Your task to perform on an android device: Open battery settings Image 0: 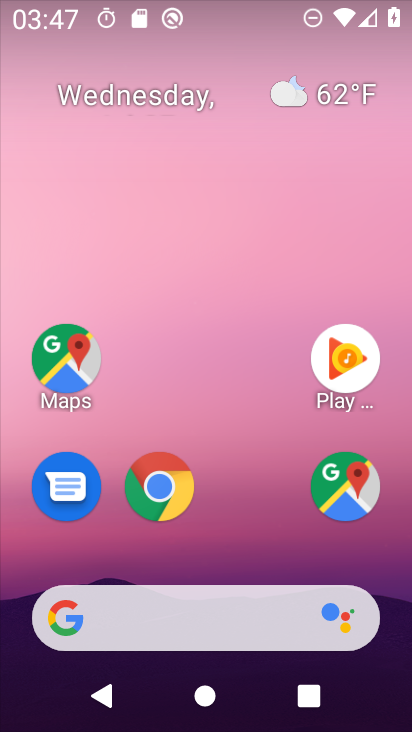
Step 0: press home button
Your task to perform on an android device: Open battery settings Image 1: 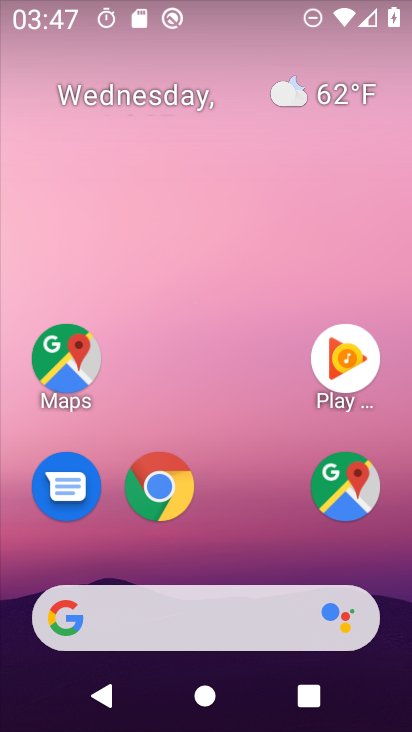
Step 1: drag from (306, 552) to (309, 142)
Your task to perform on an android device: Open battery settings Image 2: 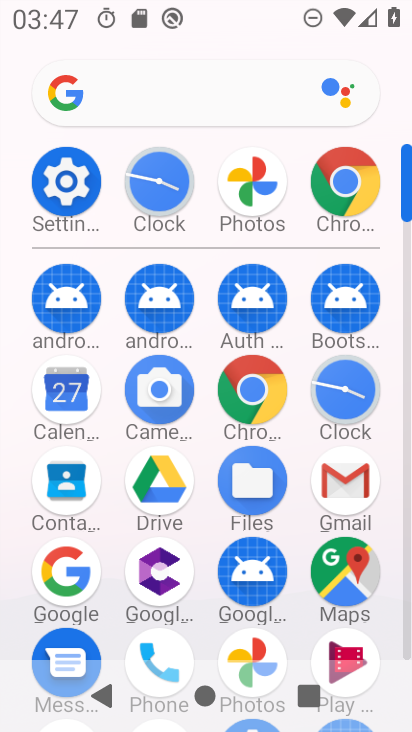
Step 2: click (74, 187)
Your task to perform on an android device: Open battery settings Image 3: 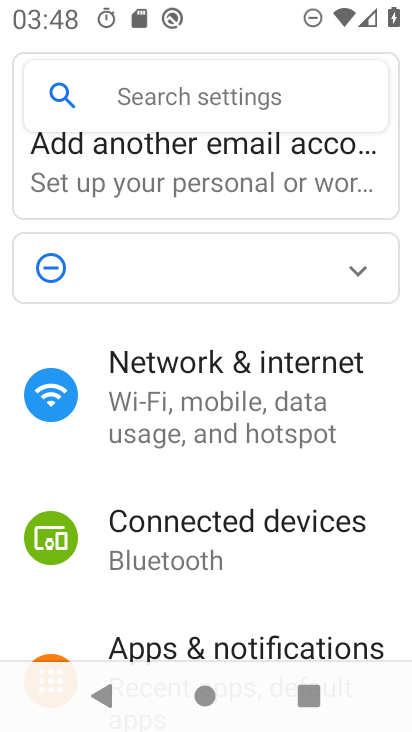
Step 3: drag from (356, 556) to (380, 464)
Your task to perform on an android device: Open battery settings Image 4: 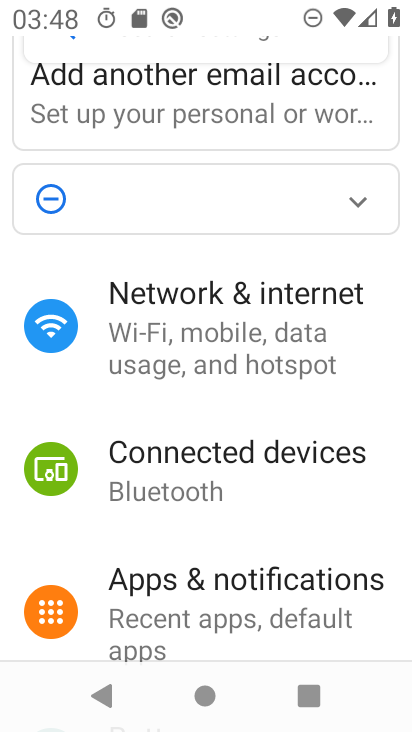
Step 4: drag from (369, 601) to (374, 438)
Your task to perform on an android device: Open battery settings Image 5: 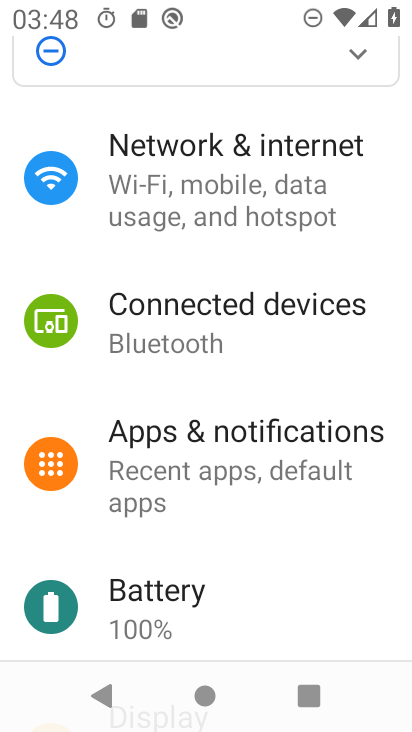
Step 5: drag from (360, 556) to (366, 427)
Your task to perform on an android device: Open battery settings Image 6: 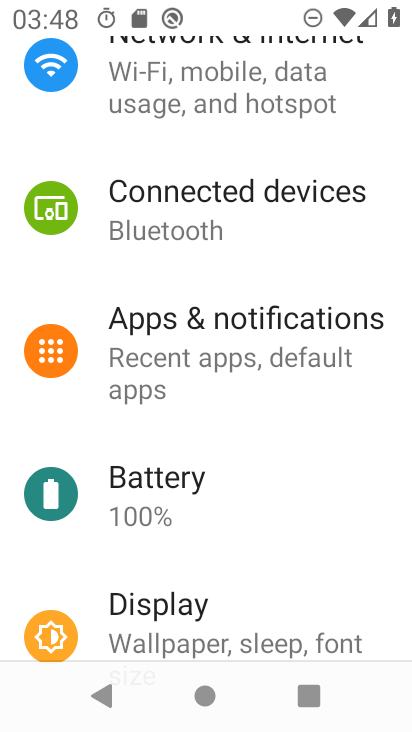
Step 6: drag from (347, 538) to (321, 341)
Your task to perform on an android device: Open battery settings Image 7: 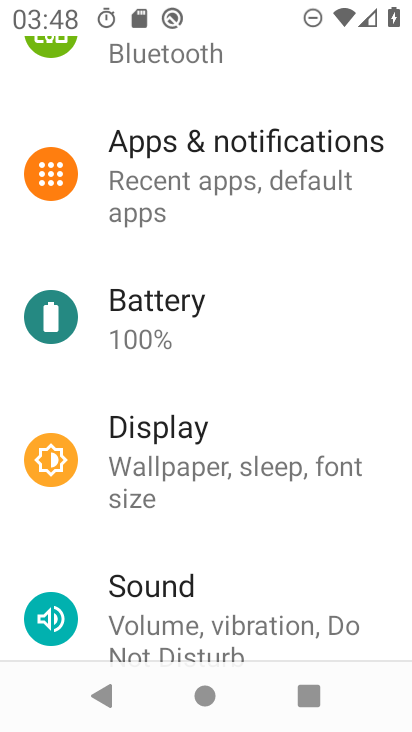
Step 7: click (250, 324)
Your task to perform on an android device: Open battery settings Image 8: 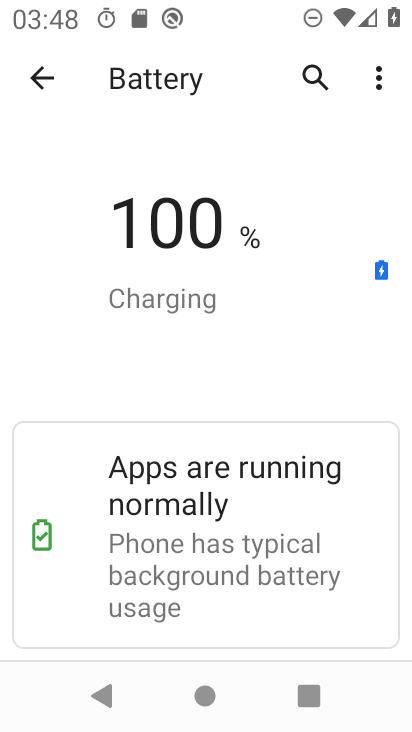
Step 8: task complete